Your task to perform on an android device: Go to ESPN.com Image 0: 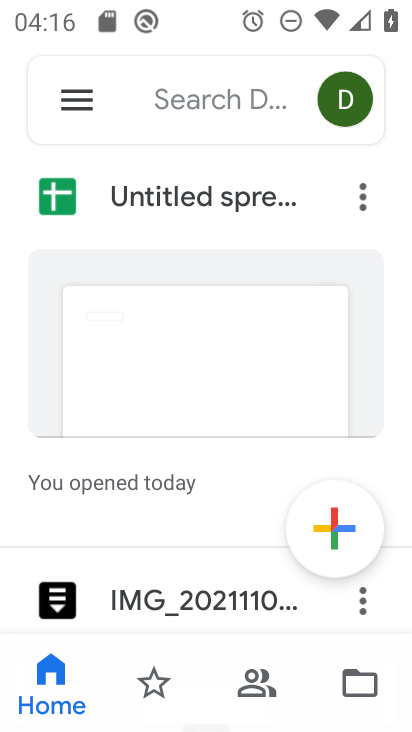
Step 0: press home button
Your task to perform on an android device: Go to ESPN.com Image 1: 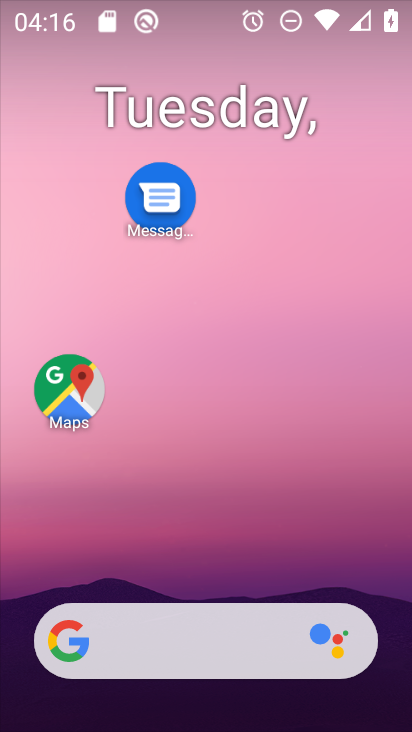
Step 1: drag from (195, 540) to (217, 278)
Your task to perform on an android device: Go to ESPN.com Image 2: 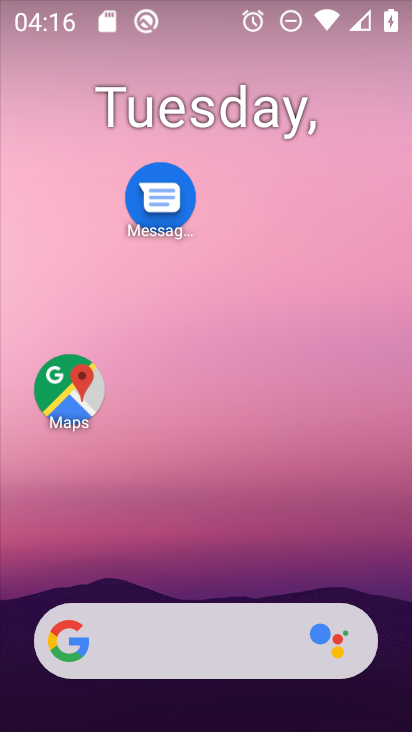
Step 2: drag from (204, 575) to (203, 165)
Your task to perform on an android device: Go to ESPN.com Image 3: 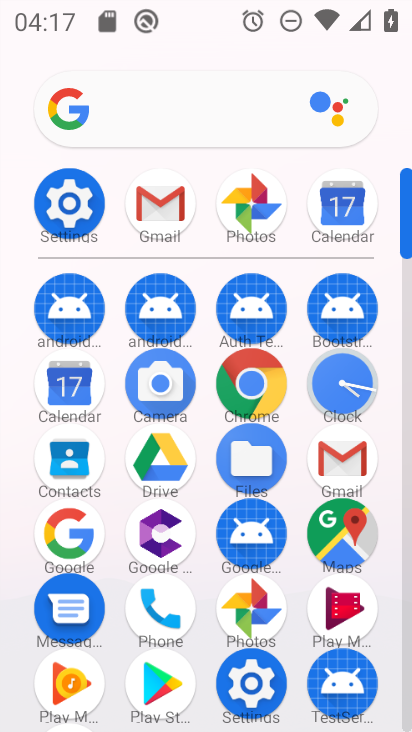
Step 3: click (233, 380)
Your task to perform on an android device: Go to ESPN.com Image 4: 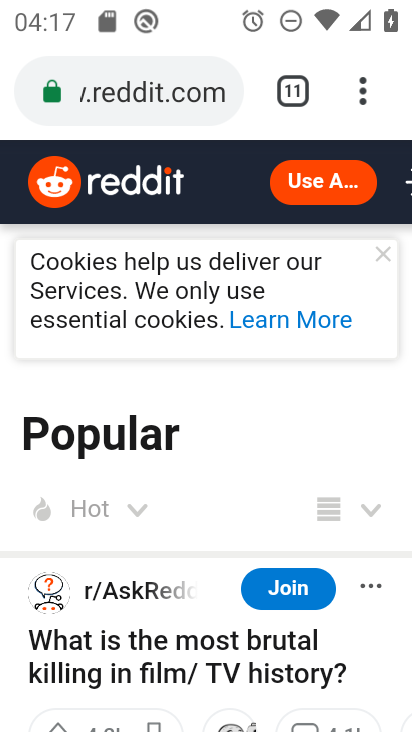
Step 4: click (280, 90)
Your task to perform on an android device: Go to ESPN.com Image 5: 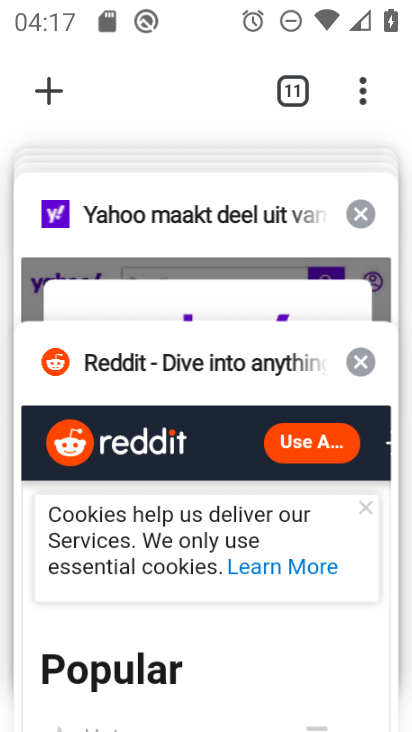
Step 5: click (38, 86)
Your task to perform on an android device: Go to ESPN.com Image 6: 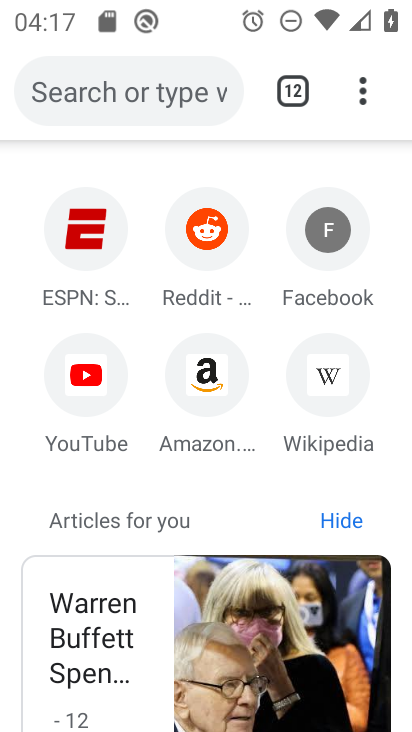
Step 6: click (104, 99)
Your task to perform on an android device: Go to ESPN.com Image 7: 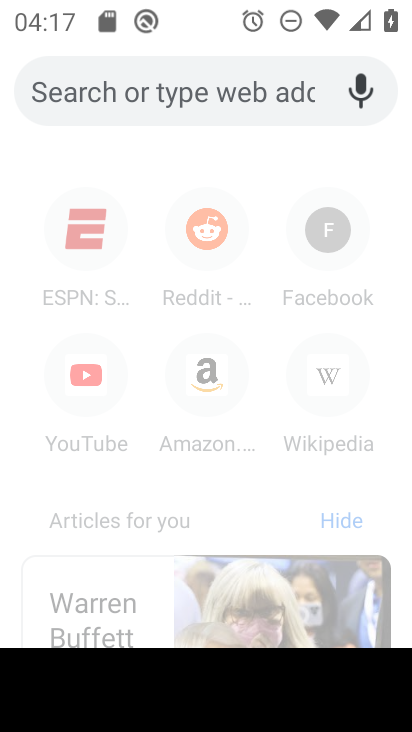
Step 7: click (79, 254)
Your task to perform on an android device: Go to ESPN.com Image 8: 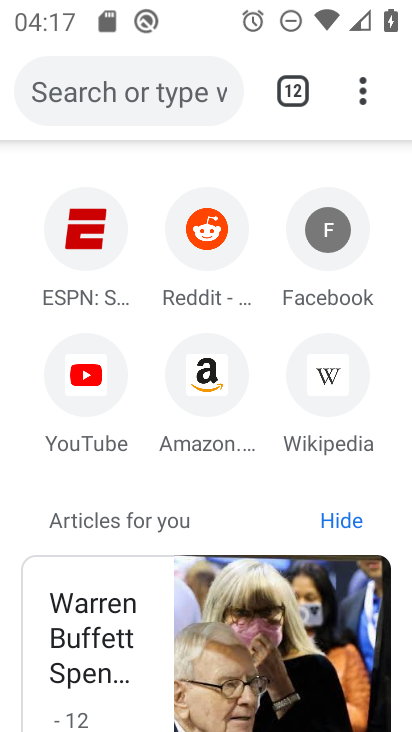
Step 8: click (79, 254)
Your task to perform on an android device: Go to ESPN.com Image 9: 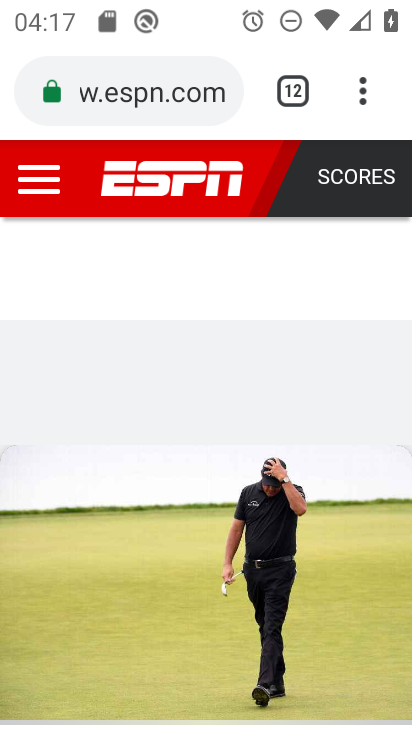
Step 9: task complete